Your task to perform on an android device: Open Google Maps and go to "Timeline" Image 0: 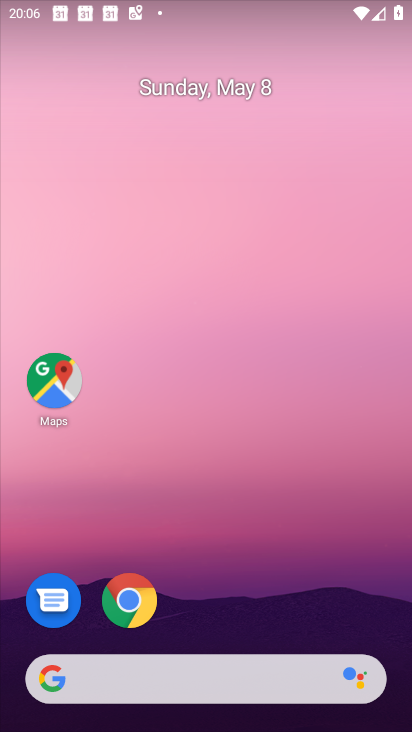
Step 0: drag from (310, 717) to (327, 227)
Your task to perform on an android device: Open Google Maps and go to "Timeline" Image 1: 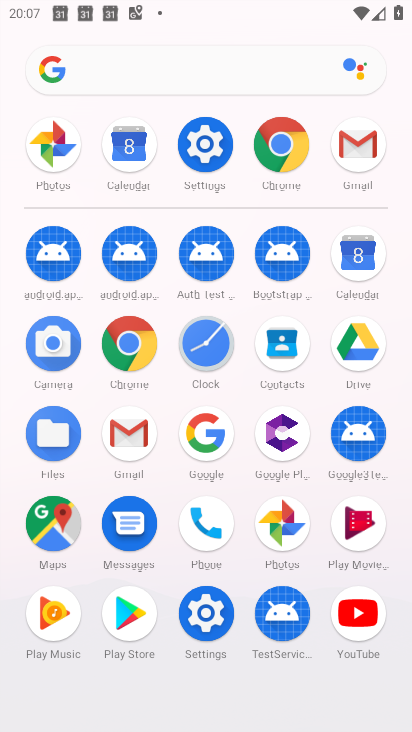
Step 1: click (47, 532)
Your task to perform on an android device: Open Google Maps and go to "Timeline" Image 2: 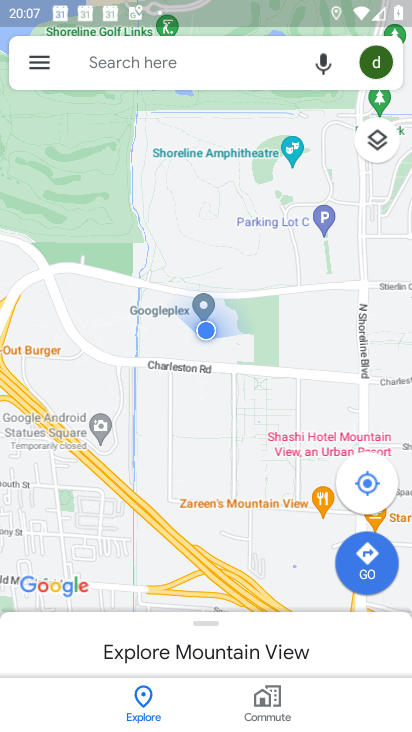
Step 2: click (39, 69)
Your task to perform on an android device: Open Google Maps and go to "Timeline" Image 3: 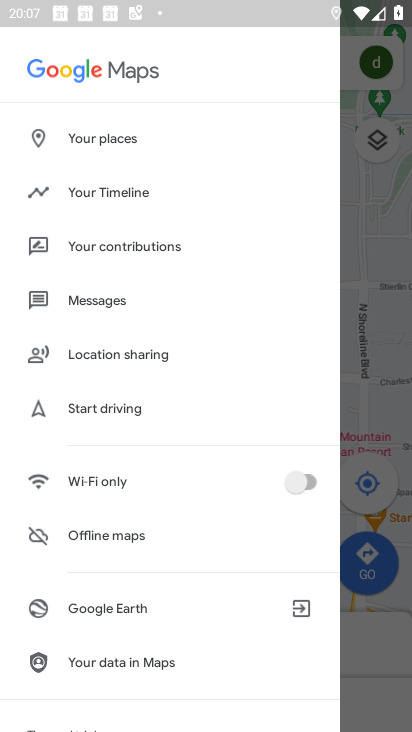
Step 3: click (101, 193)
Your task to perform on an android device: Open Google Maps and go to "Timeline" Image 4: 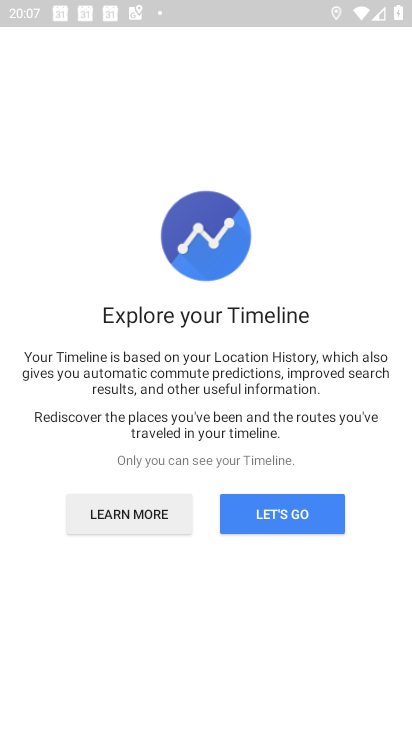
Step 4: click (296, 509)
Your task to perform on an android device: Open Google Maps and go to "Timeline" Image 5: 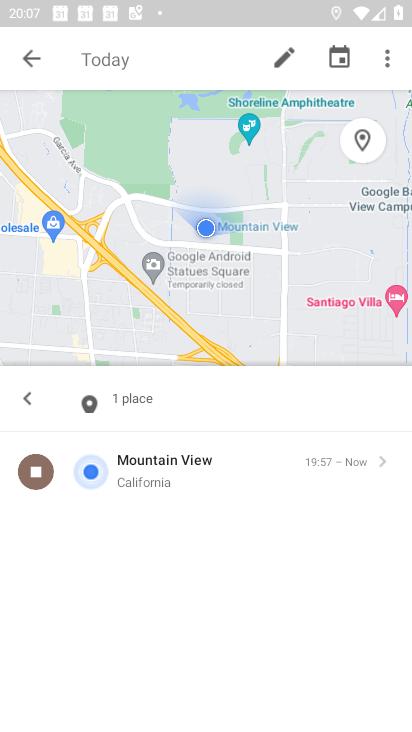
Step 5: task complete